Your task to perform on an android device: Open settings Image 0: 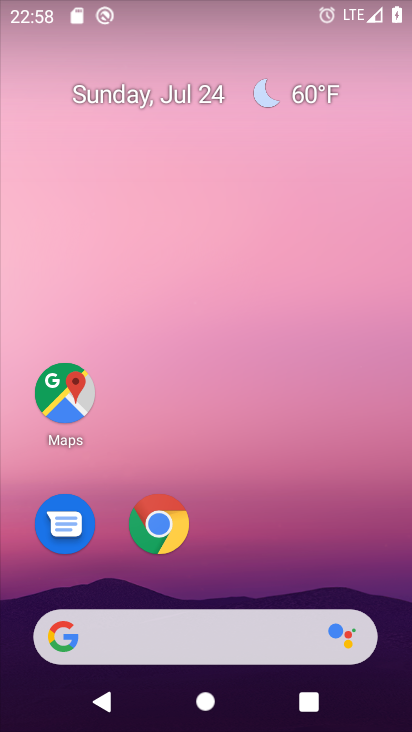
Step 0: drag from (272, 522) to (286, 1)
Your task to perform on an android device: Open settings Image 1: 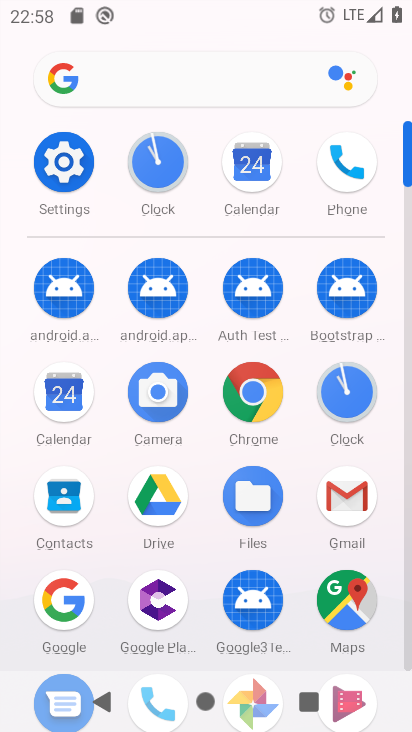
Step 1: click (66, 168)
Your task to perform on an android device: Open settings Image 2: 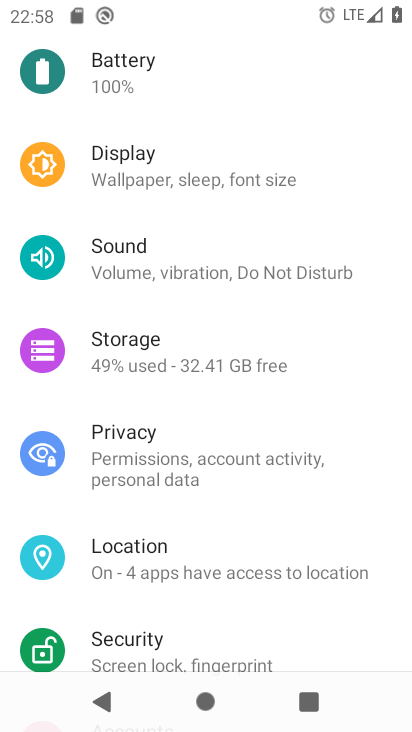
Step 2: task complete